Your task to perform on an android device: Open Chrome and go to settings Image 0: 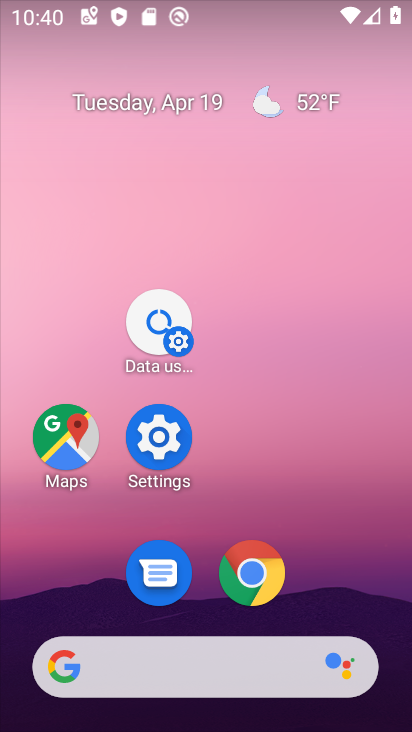
Step 0: click (255, 572)
Your task to perform on an android device: Open Chrome and go to settings Image 1: 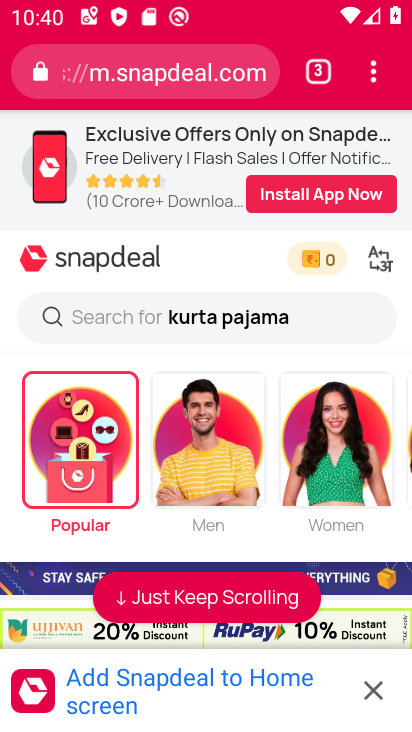
Step 1: click (374, 68)
Your task to perform on an android device: Open Chrome and go to settings Image 2: 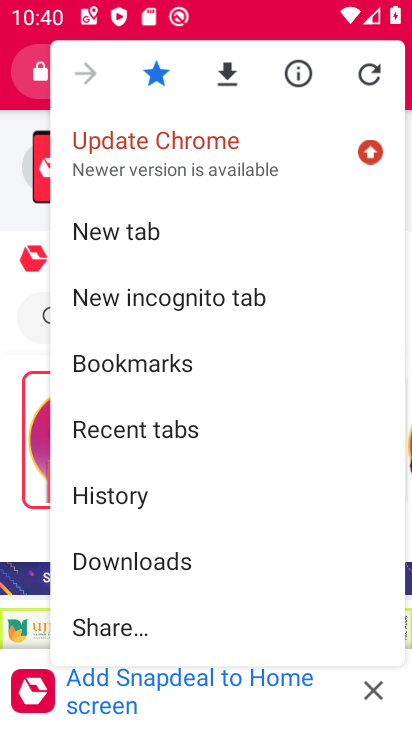
Step 2: drag from (286, 560) to (278, 199)
Your task to perform on an android device: Open Chrome and go to settings Image 3: 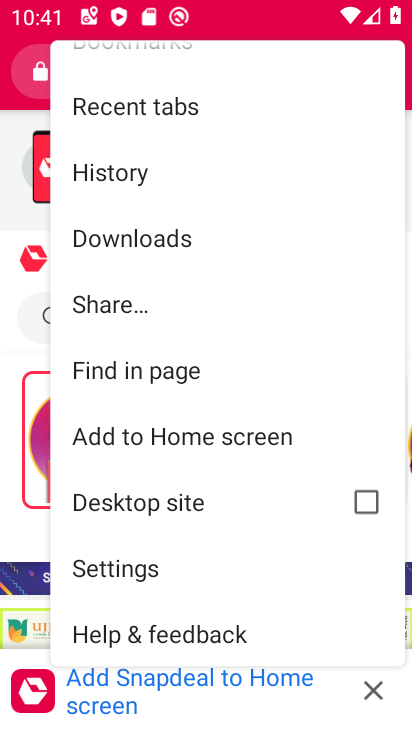
Step 3: click (87, 573)
Your task to perform on an android device: Open Chrome and go to settings Image 4: 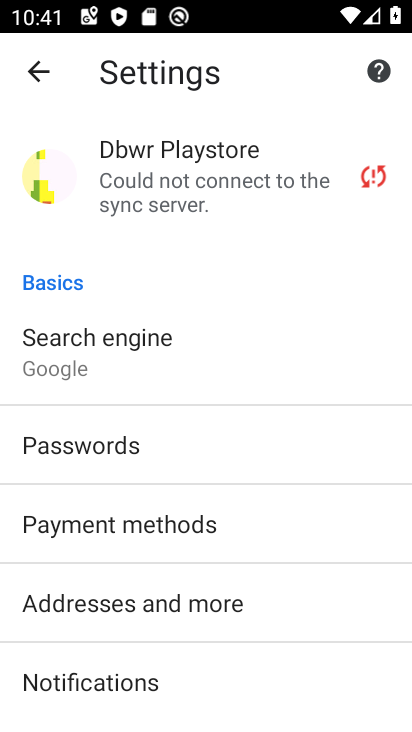
Step 4: task complete